Your task to perform on an android device: Open the calendar app, open the side menu, and click the "Day" option Image 0: 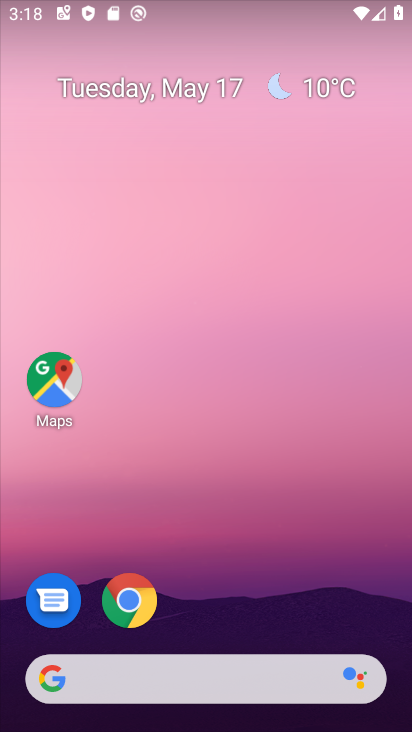
Step 0: drag from (255, 647) to (147, 7)
Your task to perform on an android device: Open the calendar app, open the side menu, and click the "Day" option Image 1: 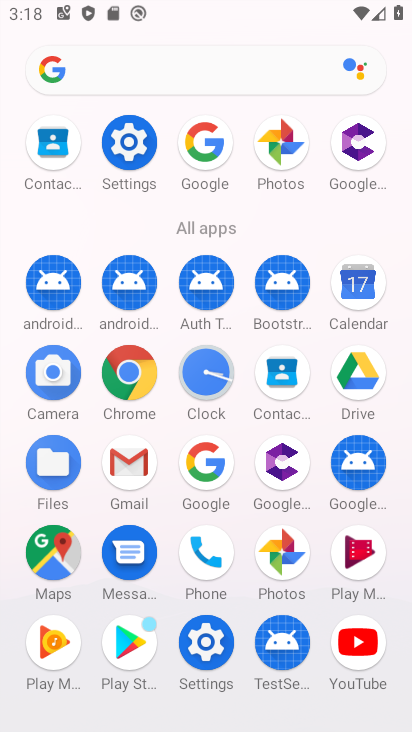
Step 1: click (56, 143)
Your task to perform on an android device: Open the calendar app, open the side menu, and click the "Day" option Image 2: 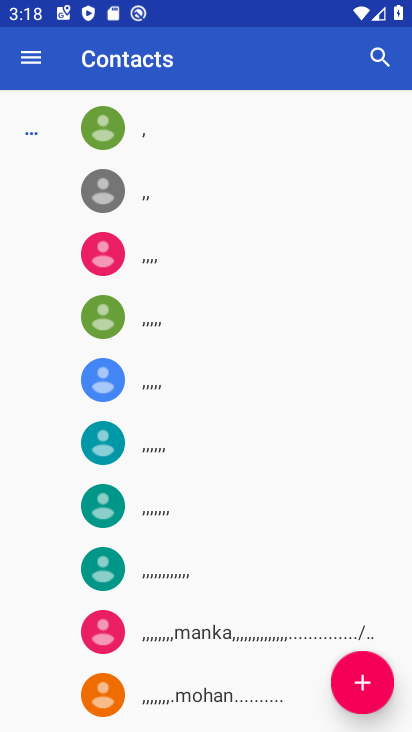
Step 2: press home button
Your task to perform on an android device: Open the calendar app, open the side menu, and click the "Day" option Image 3: 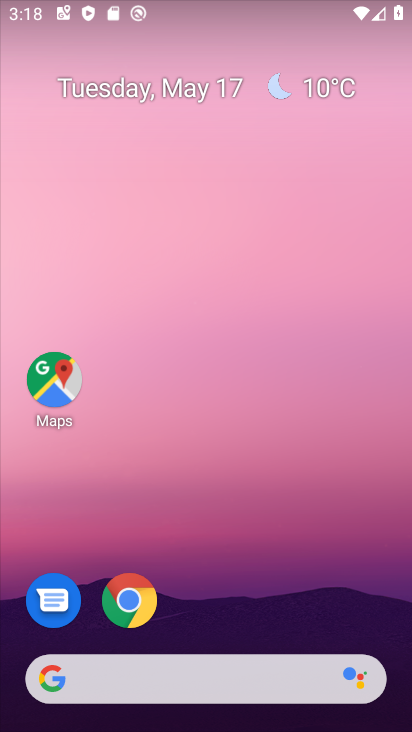
Step 3: drag from (230, 607) to (186, 86)
Your task to perform on an android device: Open the calendar app, open the side menu, and click the "Day" option Image 4: 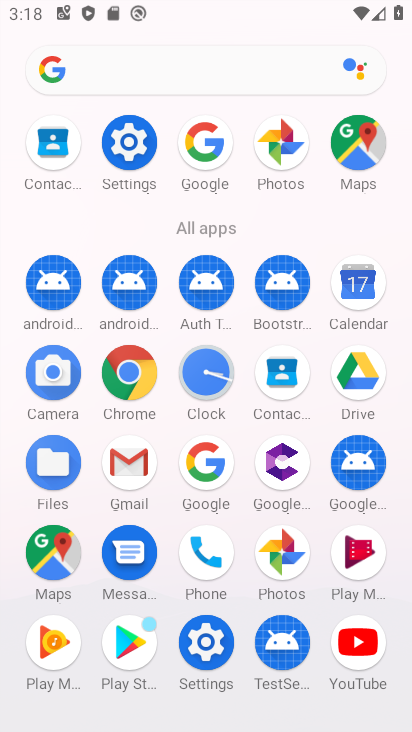
Step 4: click (365, 285)
Your task to perform on an android device: Open the calendar app, open the side menu, and click the "Day" option Image 5: 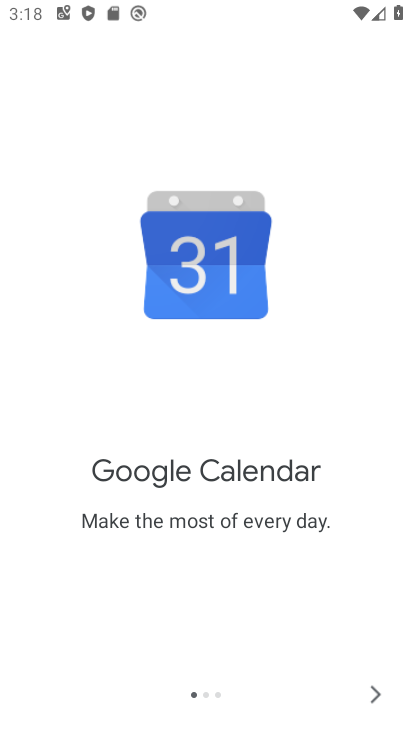
Step 5: click (376, 686)
Your task to perform on an android device: Open the calendar app, open the side menu, and click the "Day" option Image 6: 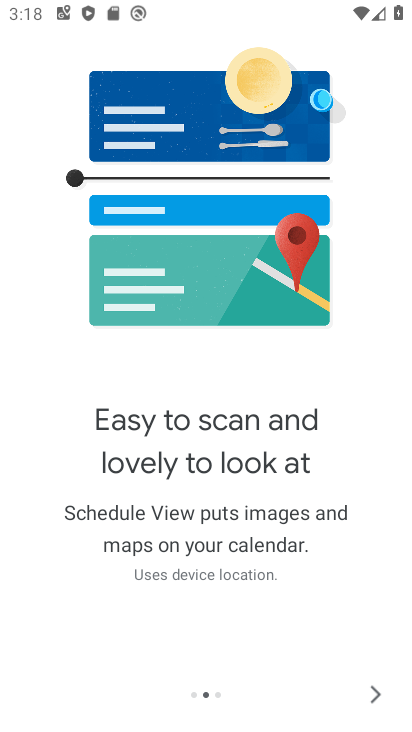
Step 6: click (376, 686)
Your task to perform on an android device: Open the calendar app, open the side menu, and click the "Day" option Image 7: 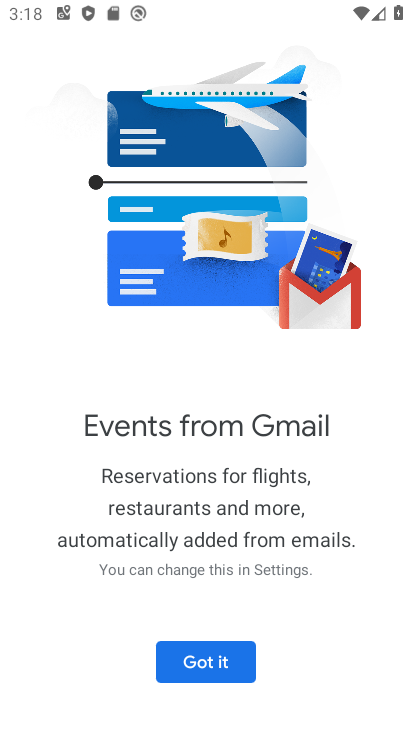
Step 7: click (235, 668)
Your task to perform on an android device: Open the calendar app, open the side menu, and click the "Day" option Image 8: 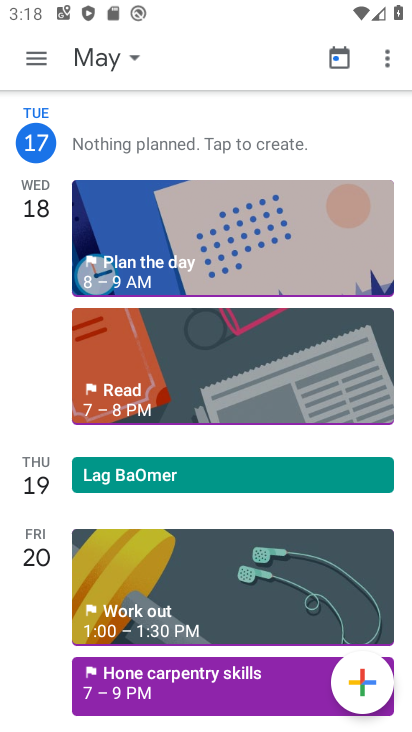
Step 8: click (45, 57)
Your task to perform on an android device: Open the calendar app, open the side menu, and click the "Day" option Image 9: 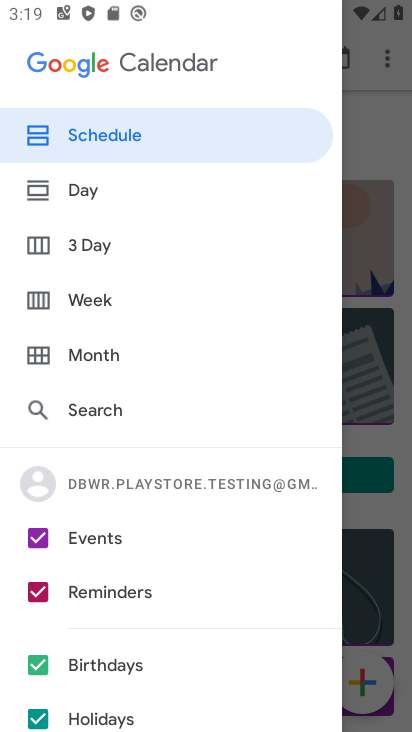
Step 9: click (116, 175)
Your task to perform on an android device: Open the calendar app, open the side menu, and click the "Day" option Image 10: 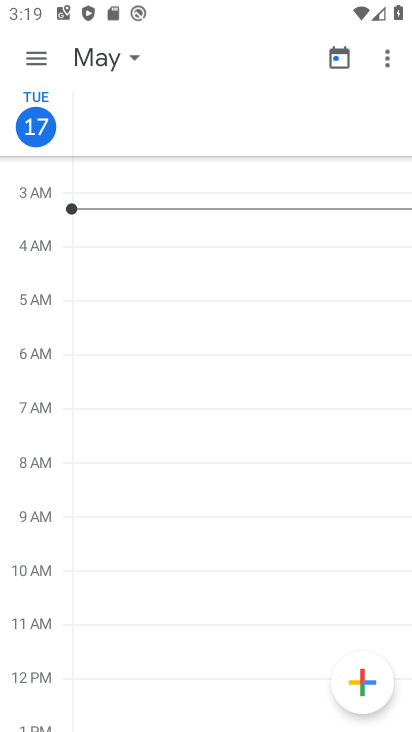
Step 10: task complete